Your task to perform on an android device: Open the Play Movies app and select the watchlist tab. Image 0: 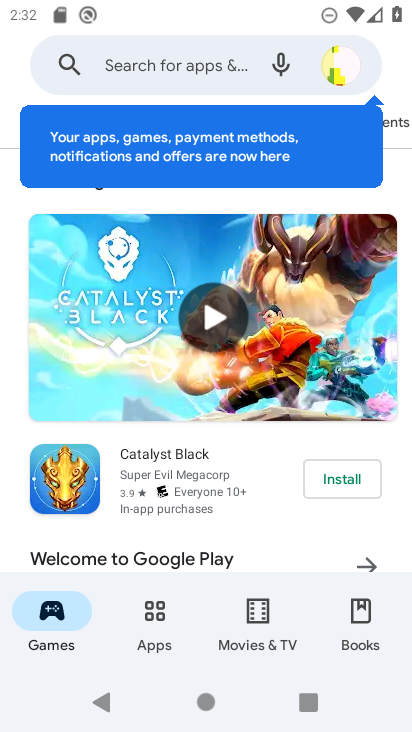
Step 0: press back button
Your task to perform on an android device: Open the Play Movies app and select the watchlist tab. Image 1: 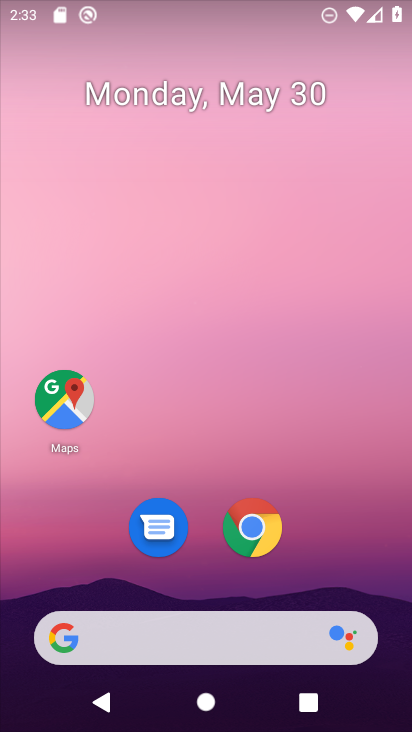
Step 1: drag from (219, 474) to (95, 37)
Your task to perform on an android device: Open the Play Movies app and select the watchlist tab. Image 2: 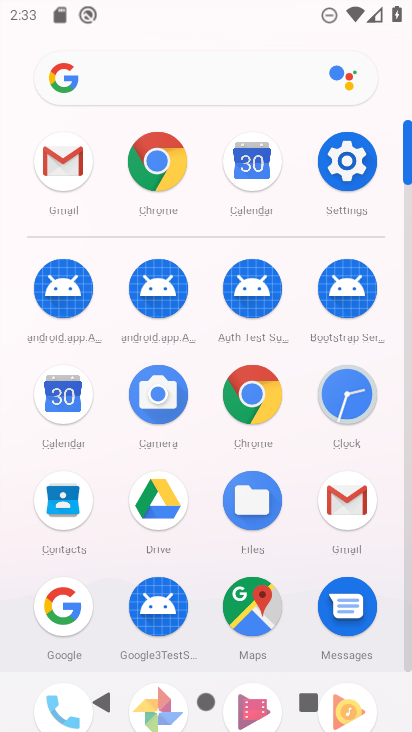
Step 2: drag from (295, 566) to (293, 294)
Your task to perform on an android device: Open the Play Movies app and select the watchlist tab. Image 3: 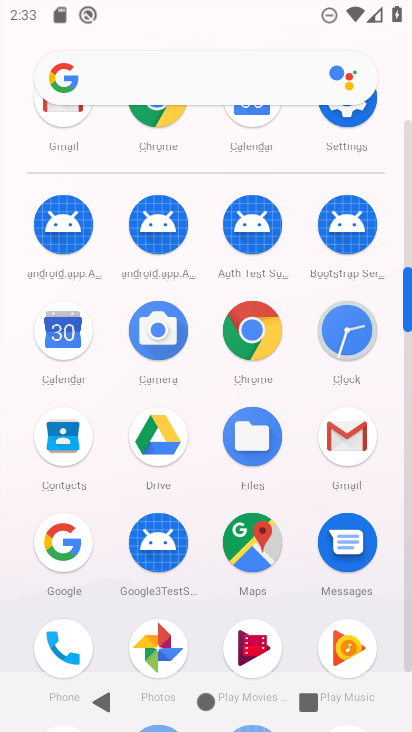
Step 3: drag from (290, 349) to (290, 187)
Your task to perform on an android device: Open the Play Movies app and select the watchlist tab. Image 4: 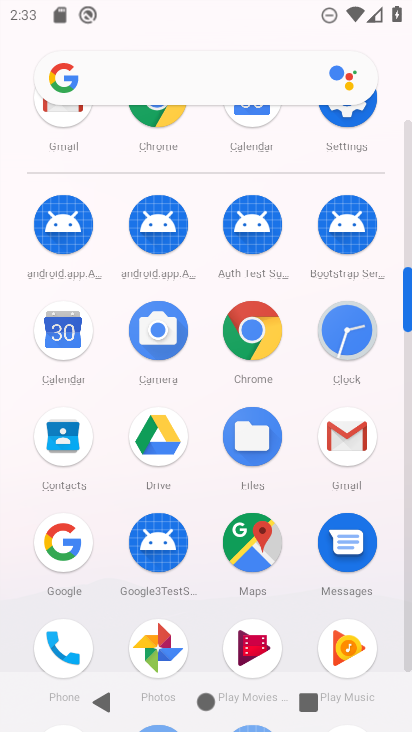
Step 4: drag from (307, 563) to (289, 274)
Your task to perform on an android device: Open the Play Movies app and select the watchlist tab. Image 5: 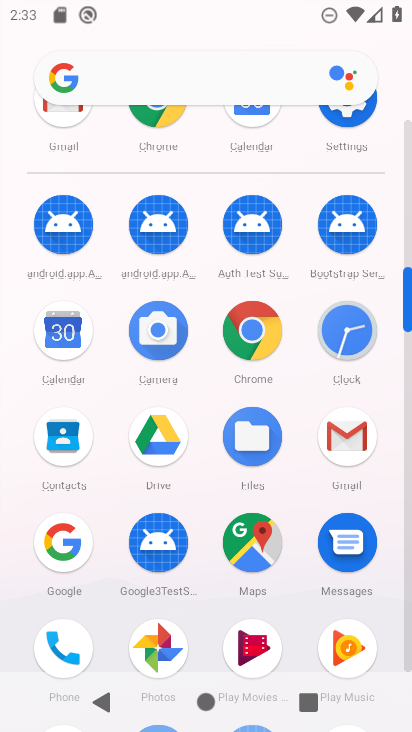
Step 5: drag from (309, 348) to (309, 255)
Your task to perform on an android device: Open the Play Movies app and select the watchlist tab. Image 6: 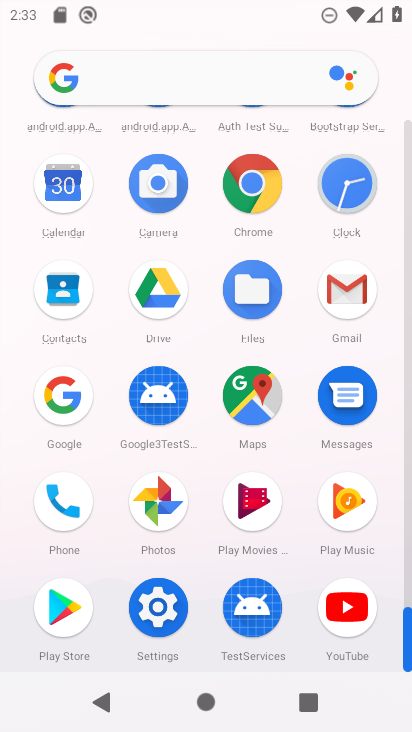
Step 6: drag from (300, 362) to (291, 223)
Your task to perform on an android device: Open the Play Movies app and select the watchlist tab. Image 7: 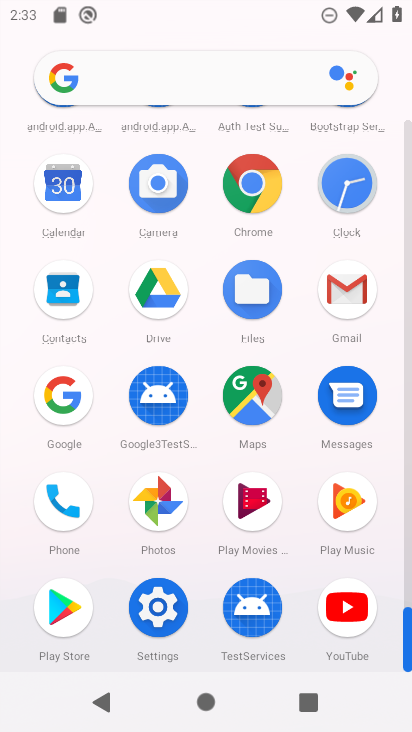
Step 7: click (349, 619)
Your task to perform on an android device: Open the Play Movies app and select the watchlist tab. Image 8: 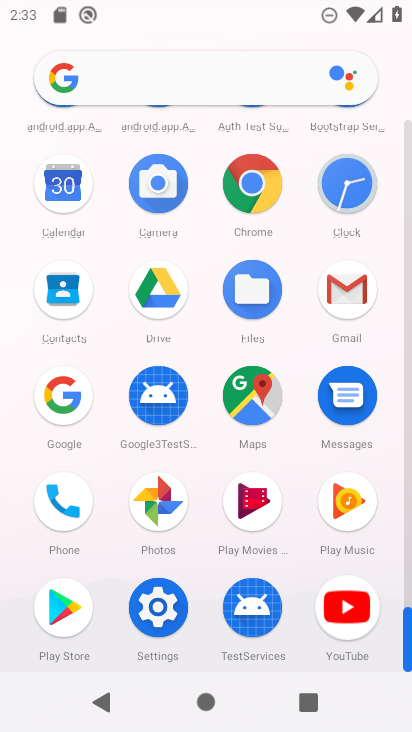
Step 8: click (350, 613)
Your task to perform on an android device: Open the Play Movies app and select the watchlist tab. Image 9: 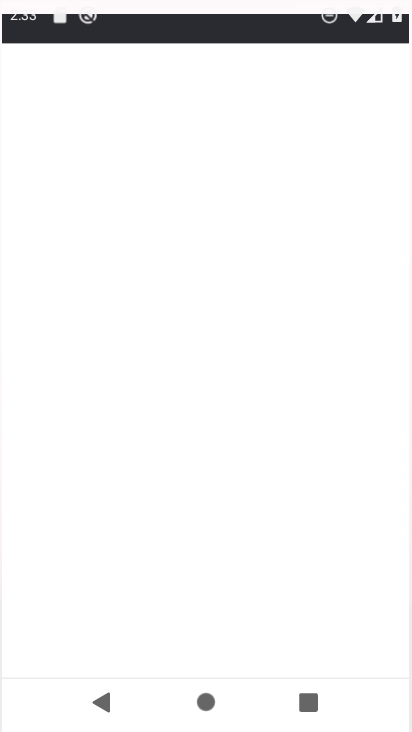
Step 9: click (349, 614)
Your task to perform on an android device: Open the Play Movies app and select the watchlist tab. Image 10: 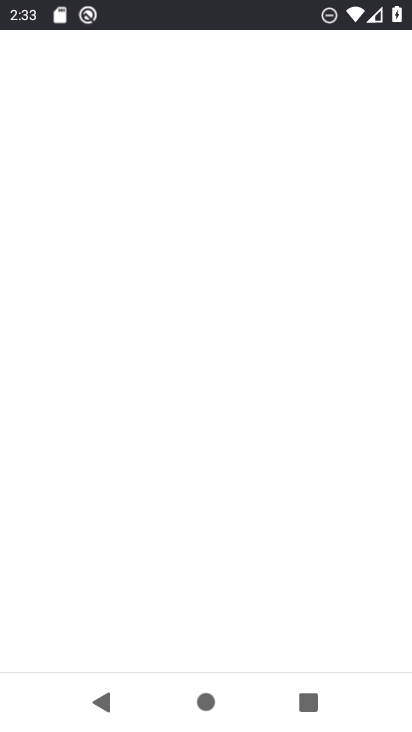
Step 10: click (345, 618)
Your task to perform on an android device: Open the Play Movies app and select the watchlist tab. Image 11: 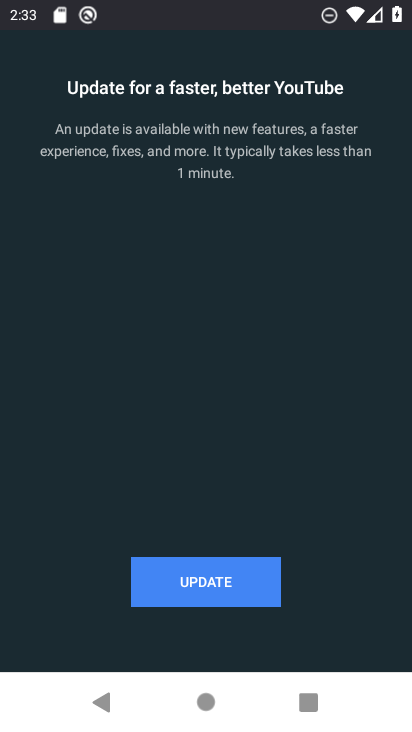
Step 11: task complete